Your task to perform on an android device: When is my next appointment? Image 0: 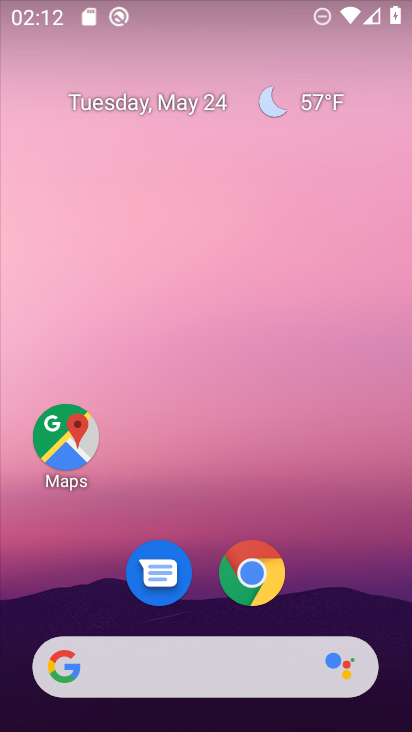
Step 0: drag from (341, 530) to (291, 219)
Your task to perform on an android device: When is my next appointment? Image 1: 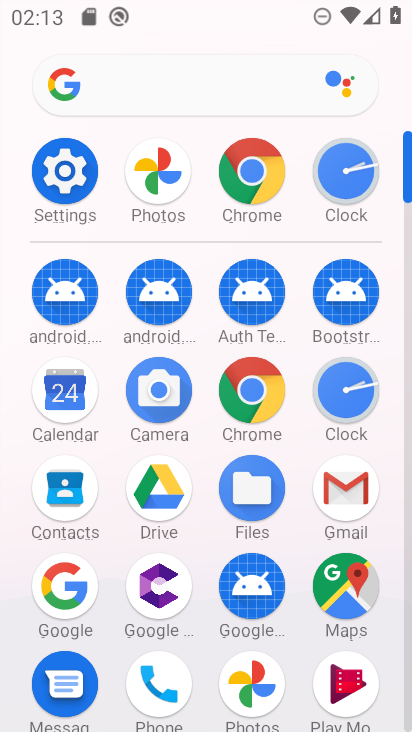
Step 1: click (64, 400)
Your task to perform on an android device: When is my next appointment? Image 2: 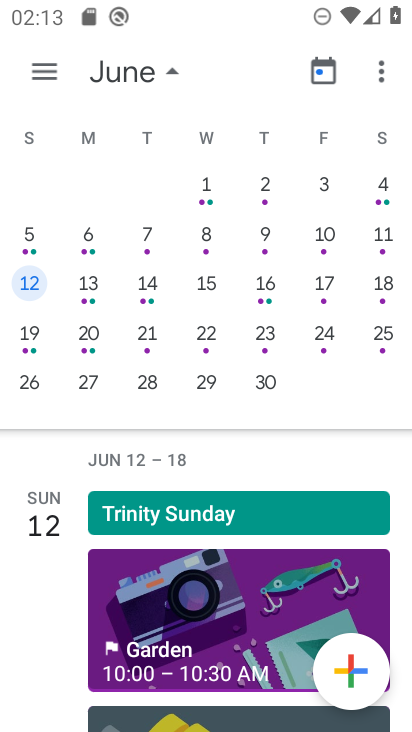
Step 2: task complete